Your task to perform on an android device: find snoozed emails in the gmail app Image 0: 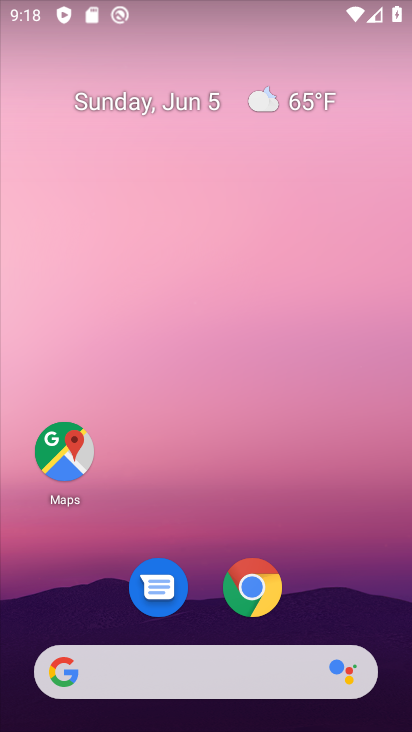
Step 0: click (177, 242)
Your task to perform on an android device: find snoozed emails in the gmail app Image 1: 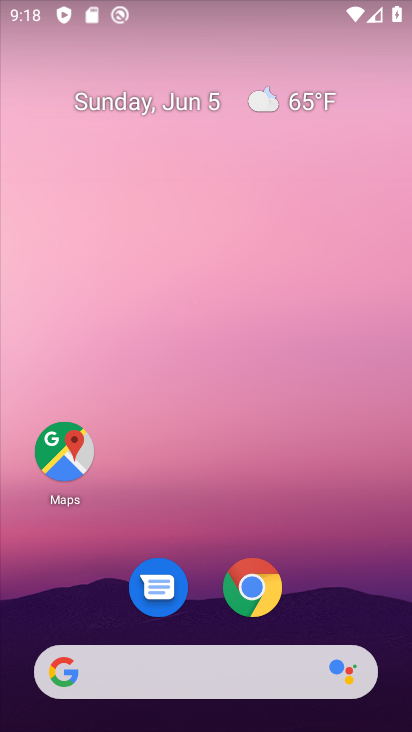
Step 1: drag from (92, 619) to (241, 58)
Your task to perform on an android device: find snoozed emails in the gmail app Image 2: 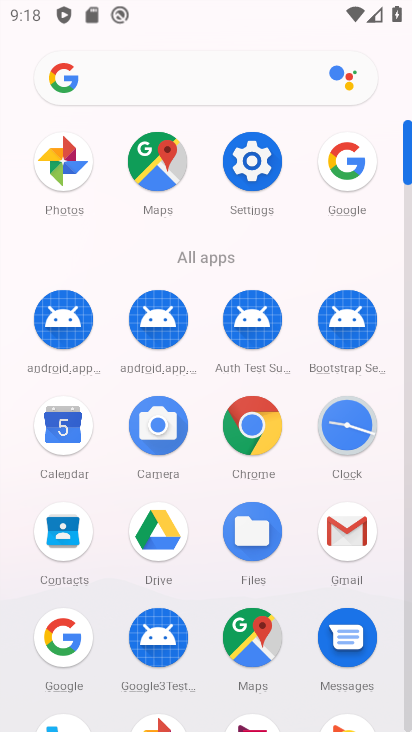
Step 2: click (348, 524)
Your task to perform on an android device: find snoozed emails in the gmail app Image 3: 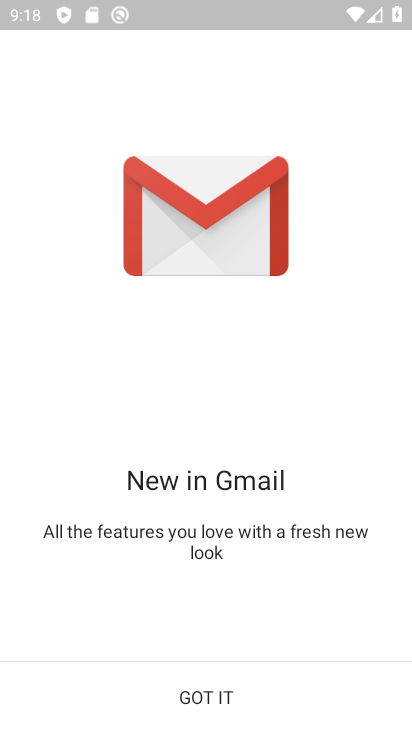
Step 3: click (196, 718)
Your task to perform on an android device: find snoozed emails in the gmail app Image 4: 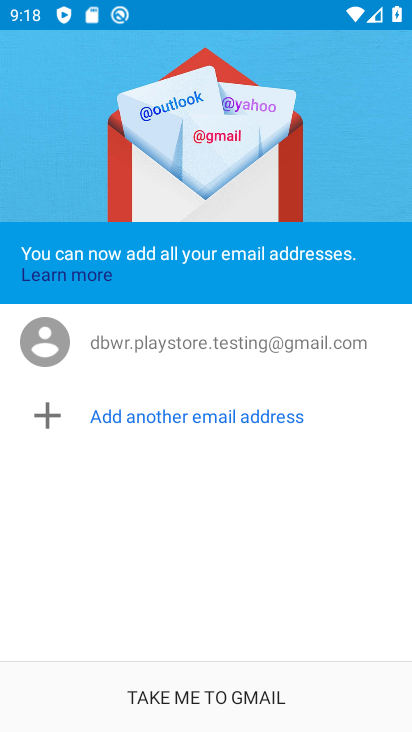
Step 4: click (208, 711)
Your task to perform on an android device: find snoozed emails in the gmail app Image 5: 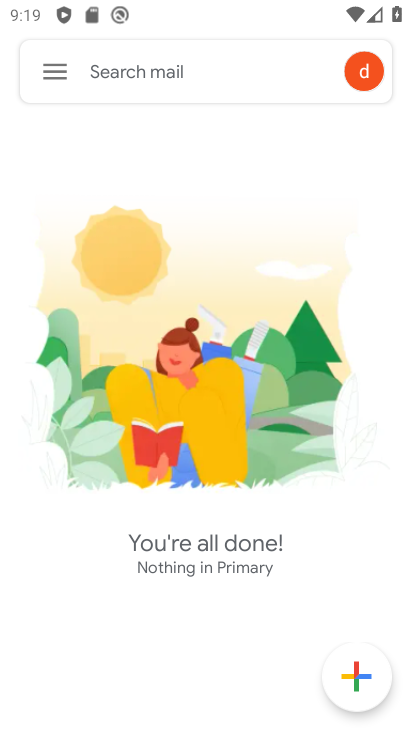
Step 5: click (84, 84)
Your task to perform on an android device: find snoozed emails in the gmail app Image 6: 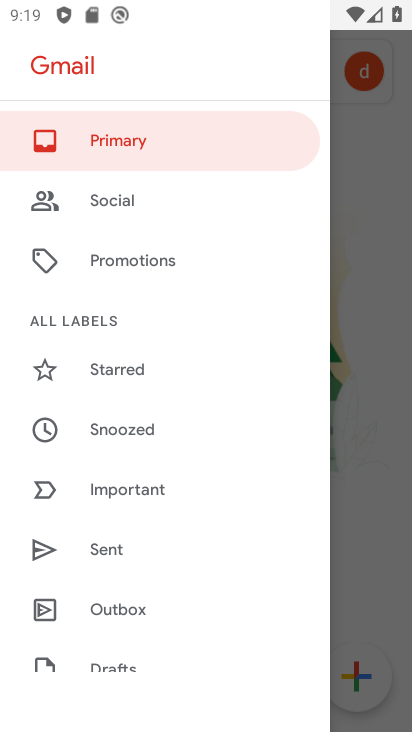
Step 6: click (167, 433)
Your task to perform on an android device: find snoozed emails in the gmail app Image 7: 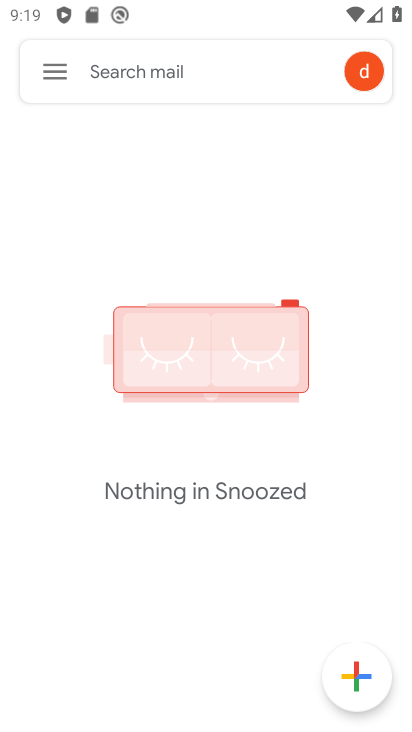
Step 7: task complete